Your task to perform on an android device: Go to wifi settings Image 0: 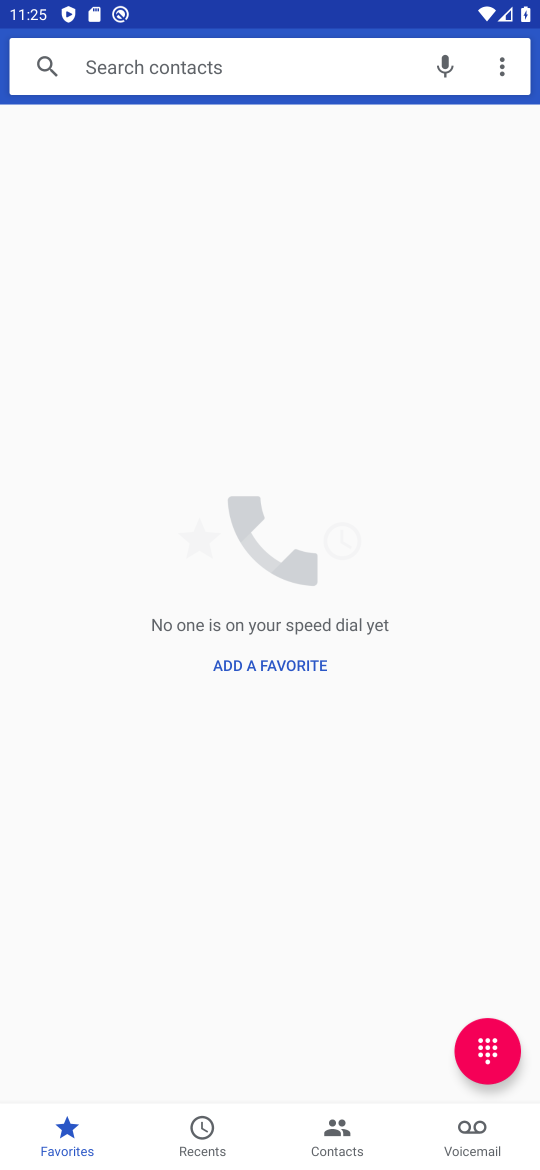
Step 0: press home button
Your task to perform on an android device: Go to wifi settings Image 1: 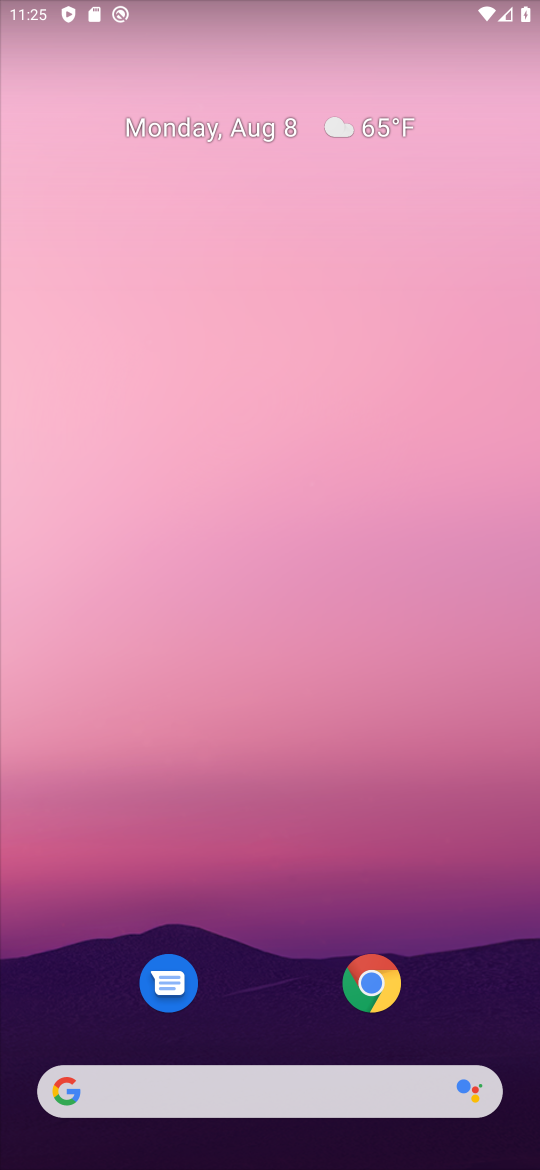
Step 1: drag from (267, 1050) to (389, 202)
Your task to perform on an android device: Go to wifi settings Image 2: 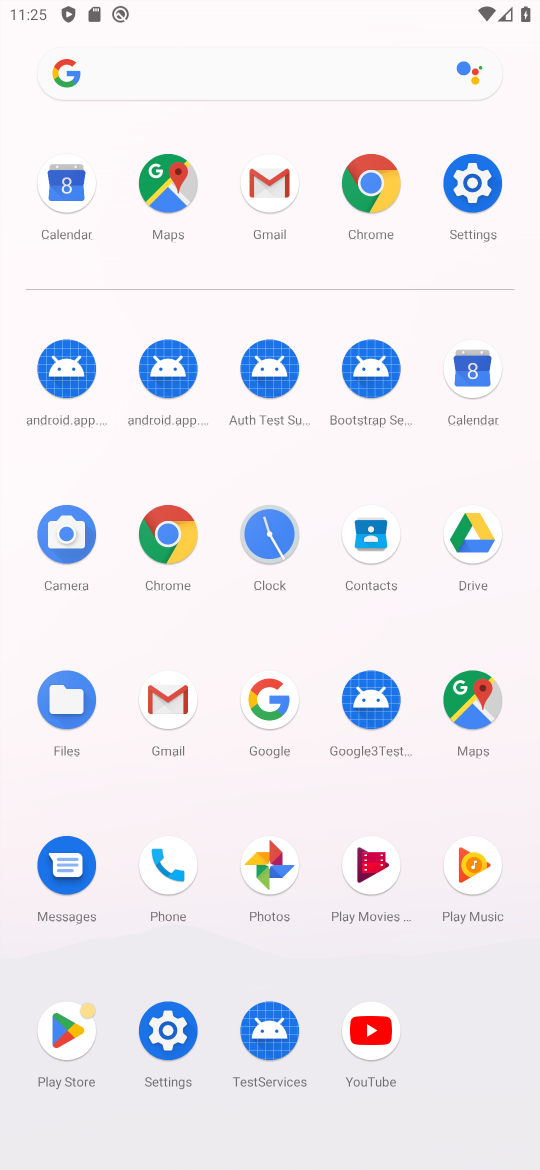
Step 2: click (454, 211)
Your task to perform on an android device: Go to wifi settings Image 3: 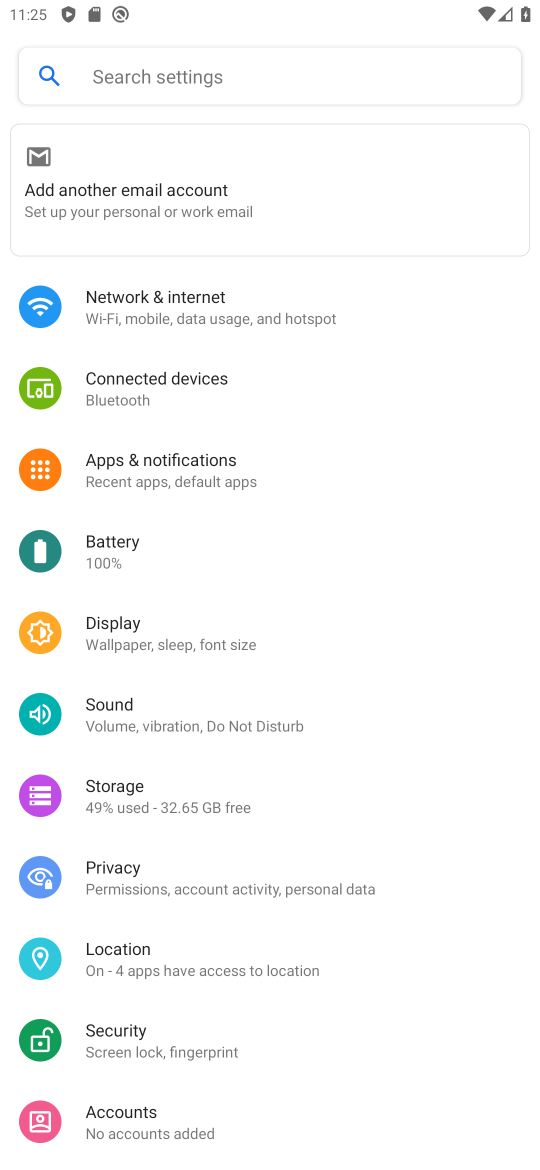
Step 3: click (205, 287)
Your task to perform on an android device: Go to wifi settings Image 4: 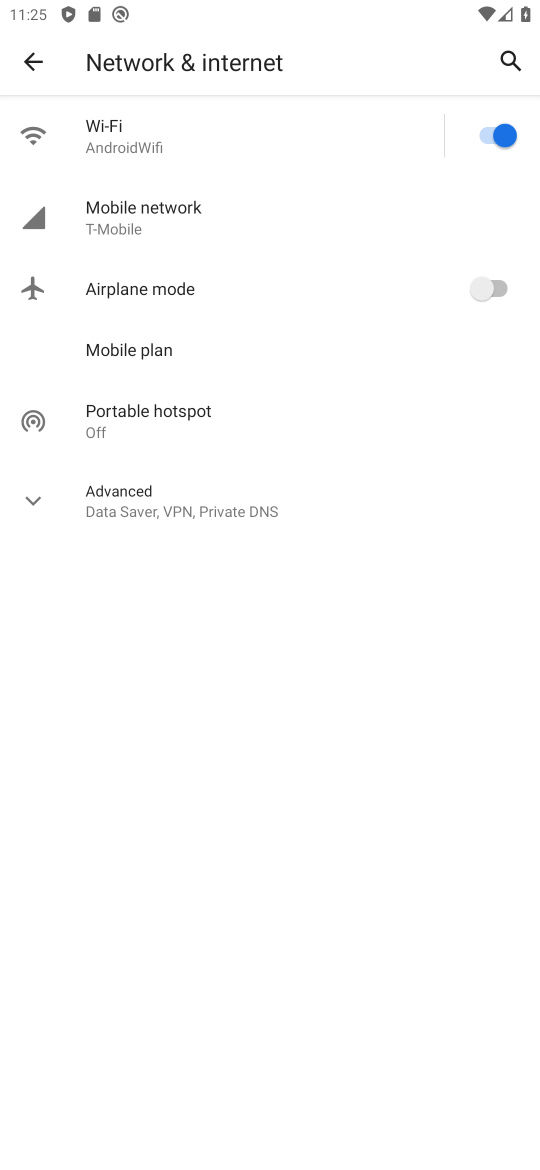
Step 4: task complete